Your task to perform on an android device: Open Amazon Image 0: 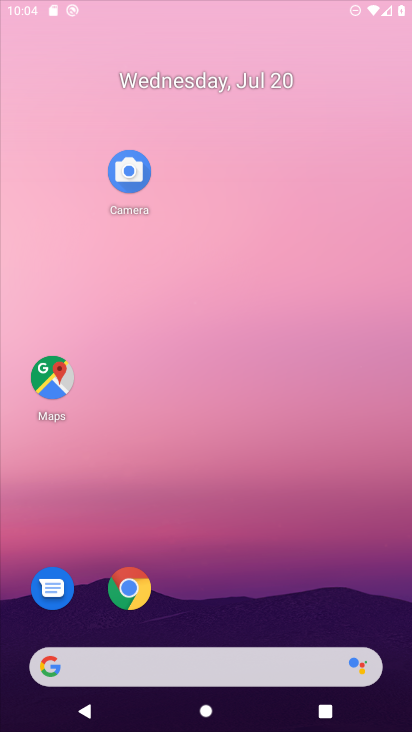
Step 0: press home button
Your task to perform on an android device: Open Amazon Image 1: 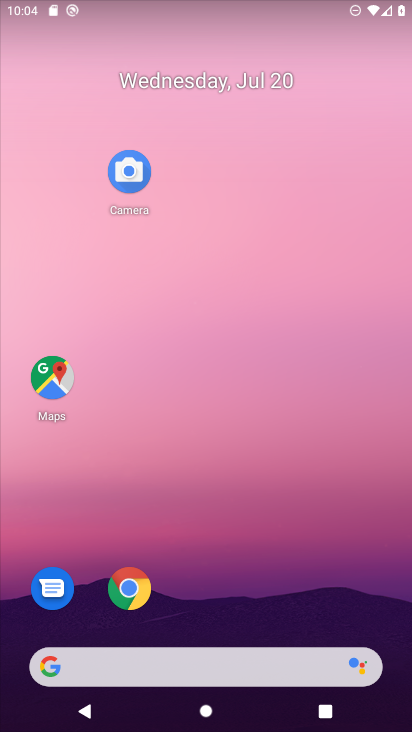
Step 1: click (51, 666)
Your task to perform on an android device: Open Amazon Image 2: 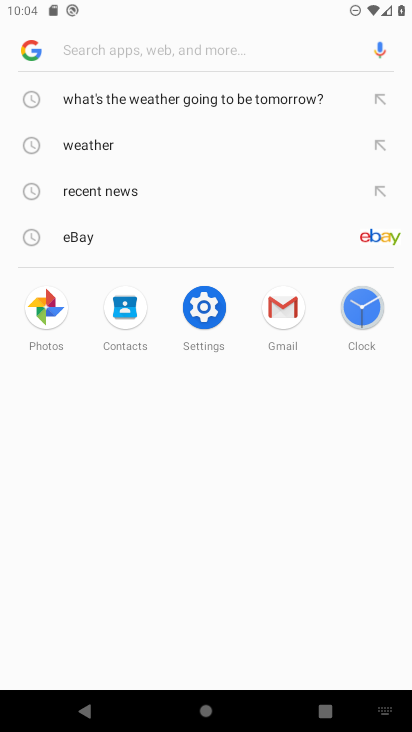
Step 2: type "Amazon"
Your task to perform on an android device: Open Amazon Image 3: 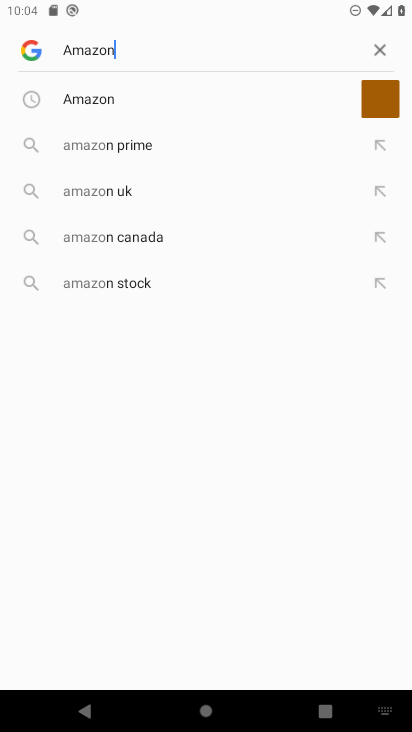
Step 3: press enter
Your task to perform on an android device: Open Amazon Image 4: 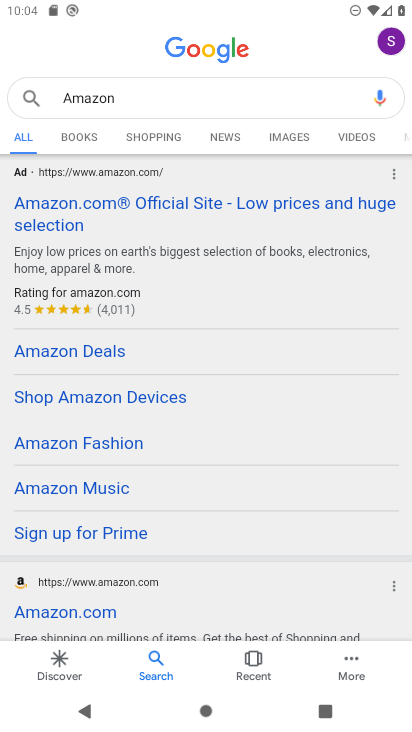
Step 4: click (93, 206)
Your task to perform on an android device: Open Amazon Image 5: 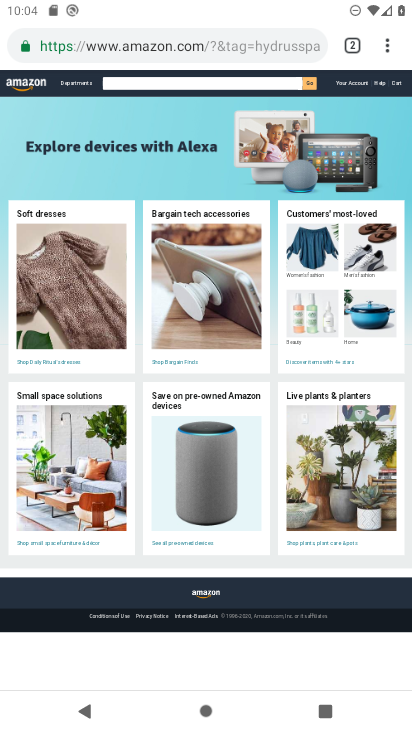
Step 5: task complete